Your task to perform on an android device: find which apps use the phone's location Image 0: 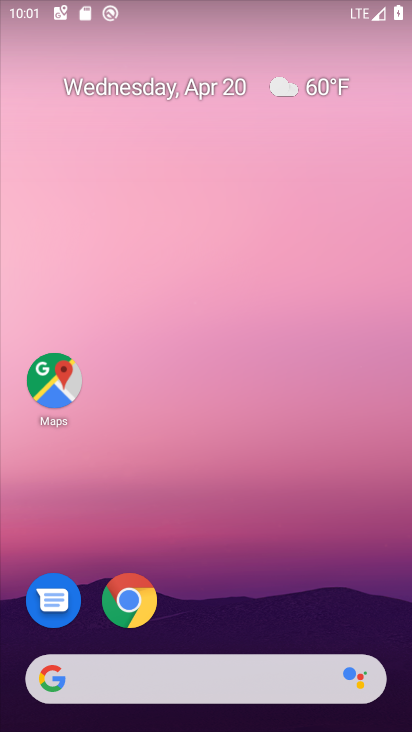
Step 0: drag from (195, 608) to (209, 88)
Your task to perform on an android device: find which apps use the phone's location Image 1: 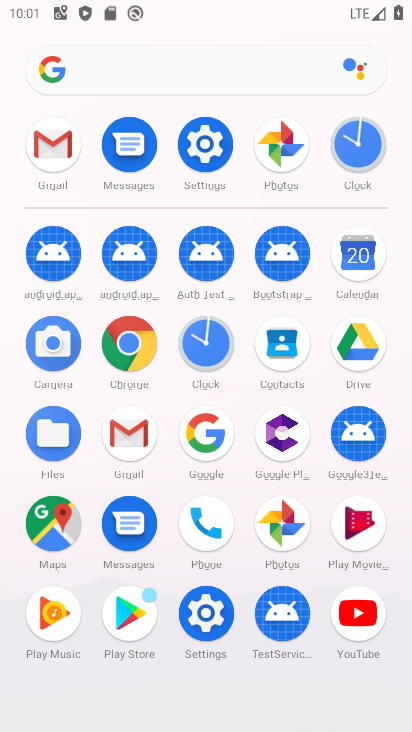
Step 1: click (210, 151)
Your task to perform on an android device: find which apps use the phone's location Image 2: 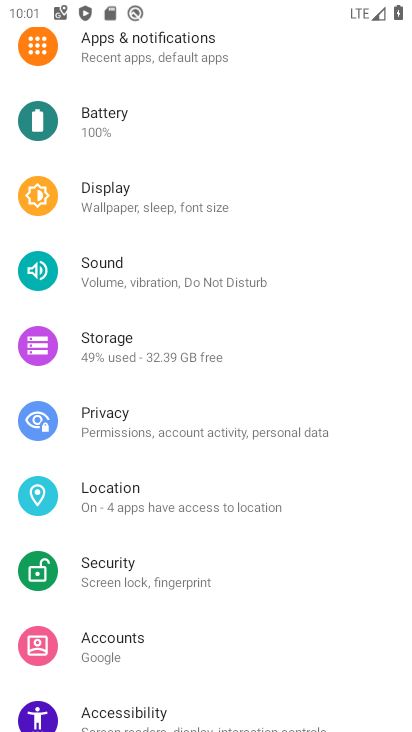
Step 2: click (149, 489)
Your task to perform on an android device: find which apps use the phone's location Image 3: 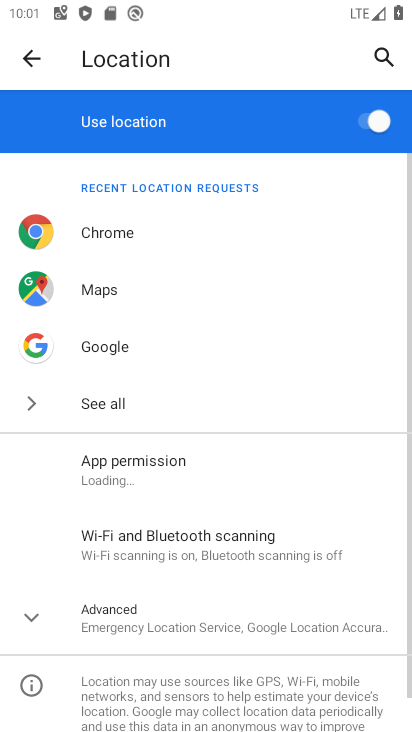
Step 3: click (102, 403)
Your task to perform on an android device: find which apps use the phone's location Image 4: 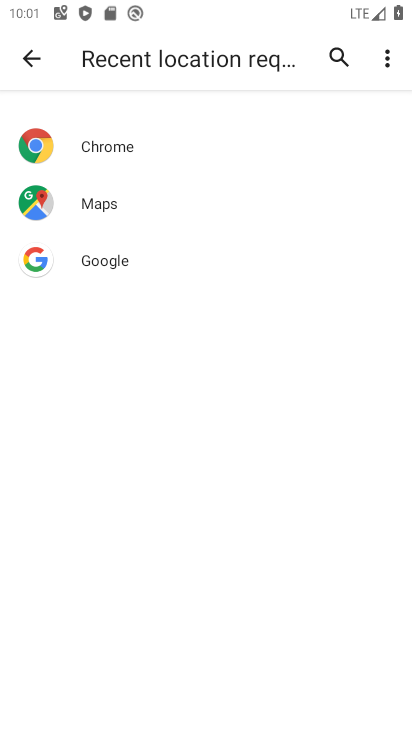
Step 4: task complete